Your task to perform on an android device: open the mobile data screen to see how much data has been used Image 0: 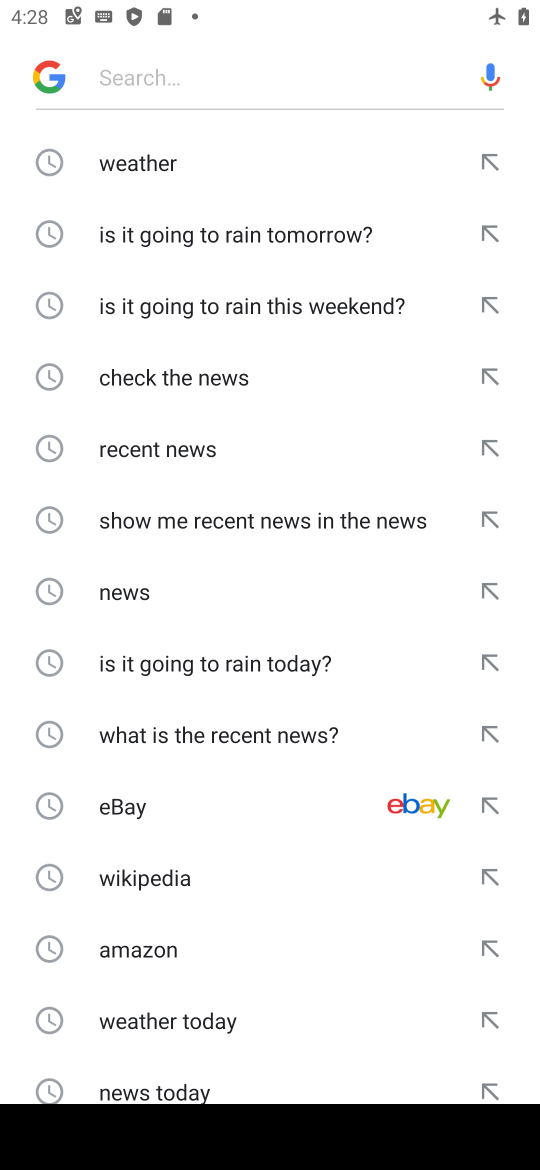
Step 0: press home button
Your task to perform on an android device: open the mobile data screen to see how much data has been used Image 1: 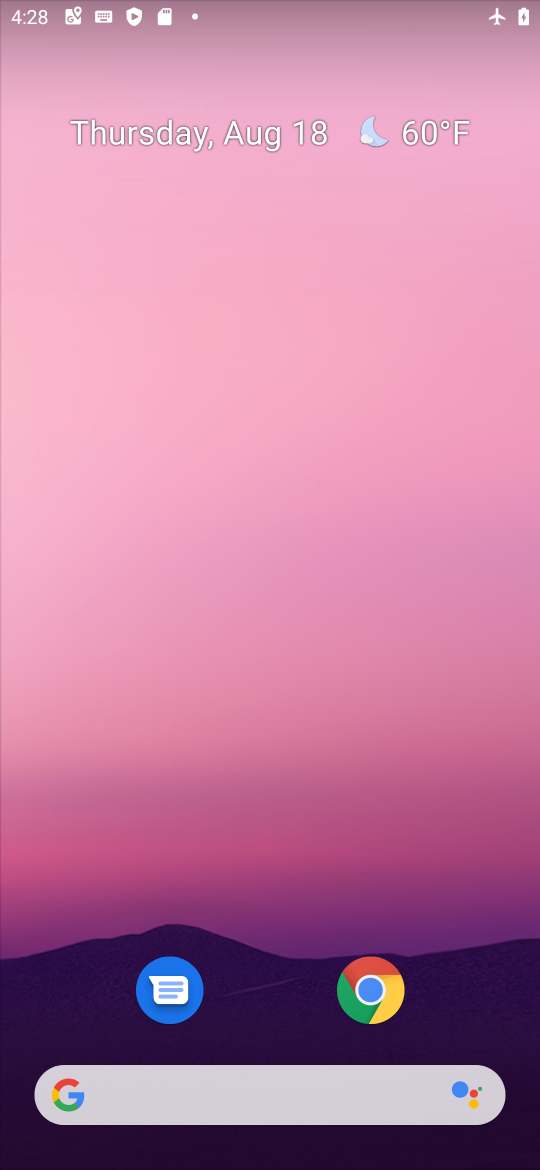
Step 1: drag from (276, 758) to (268, 14)
Your task to perform on an android device: open the mobile data screen to see how much data has been used Image 2: 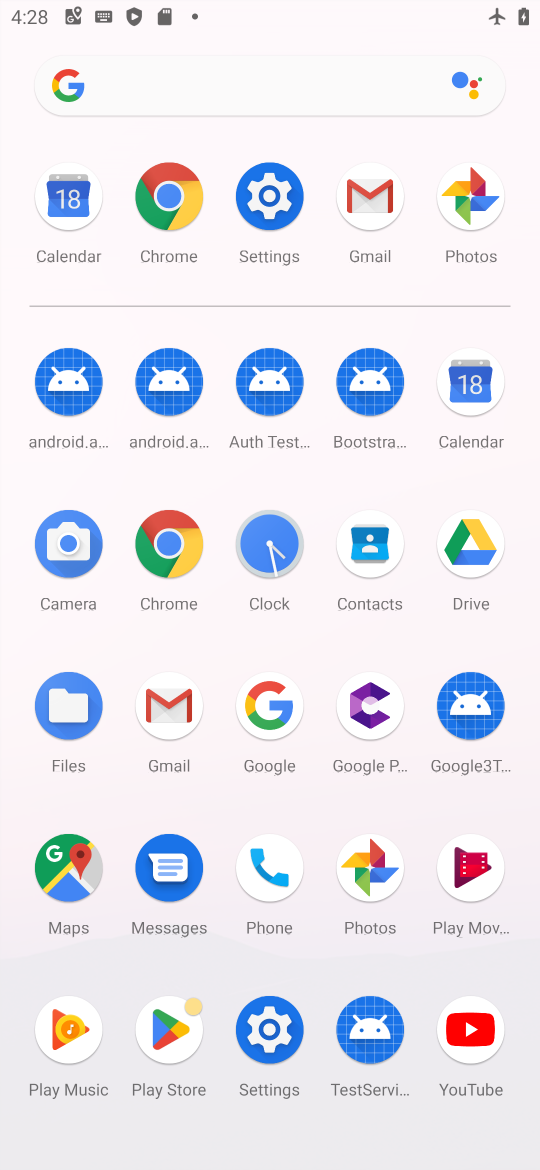
Step 2: click (172, 541)
Your task to perform on an android device: open the mobile data screen to see how much data has been used Image 3: 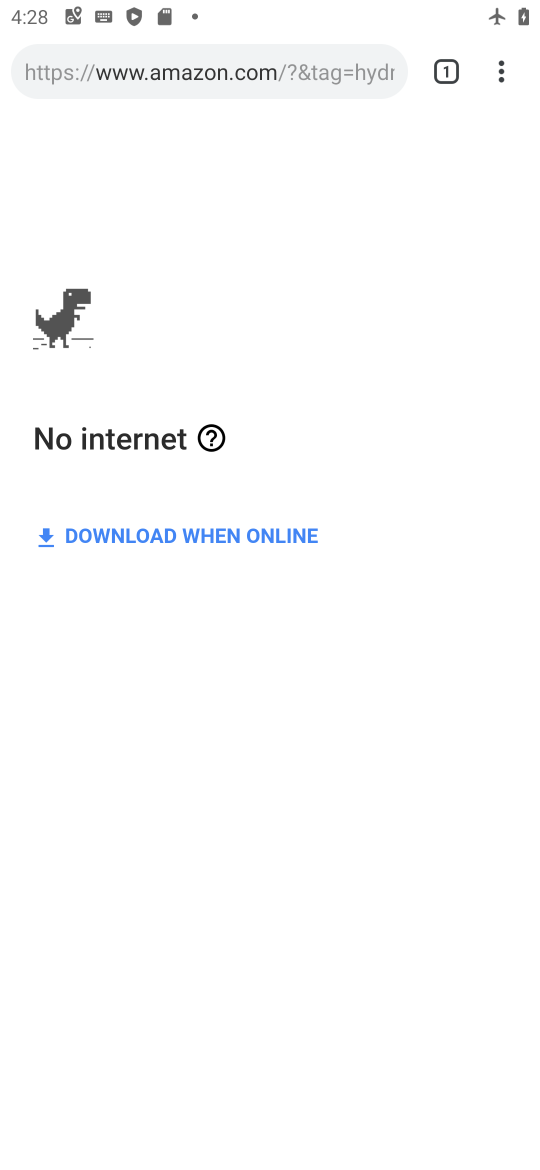
Step 3: drag from (497, 64) to (247, 805)
Your task to perform on an android device: open the mobile data screen to see how much data has been used Image 4: 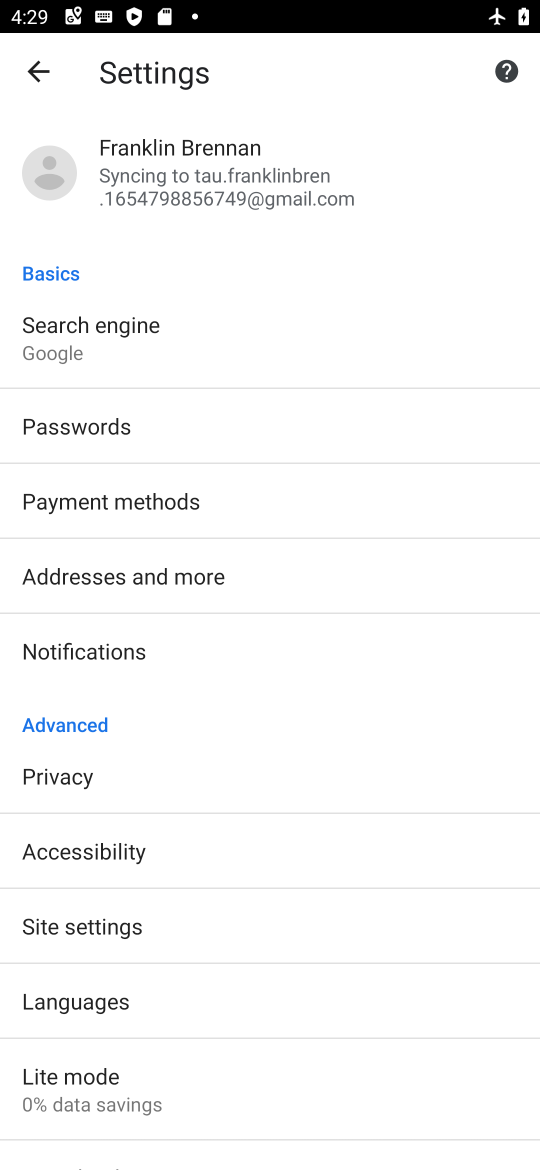
Step 4: press home button
Your task to perform on an android device: open the mobile data screen to see how much data has been used Image 5: 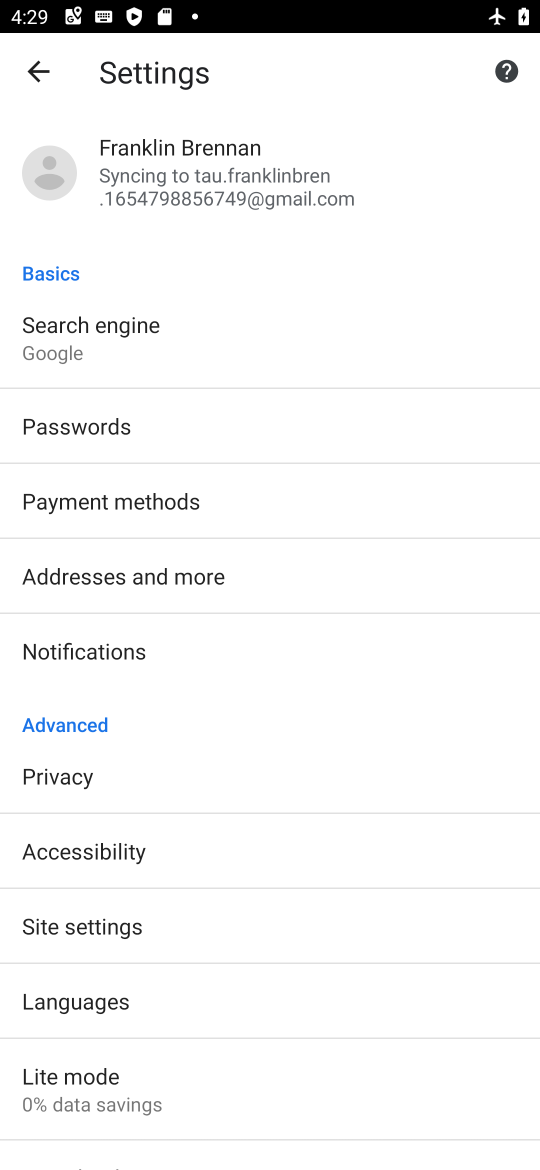
Step 5: press home button
Your task to perform on an android device: open the mobile data screen to see how much data has been used Image 6: 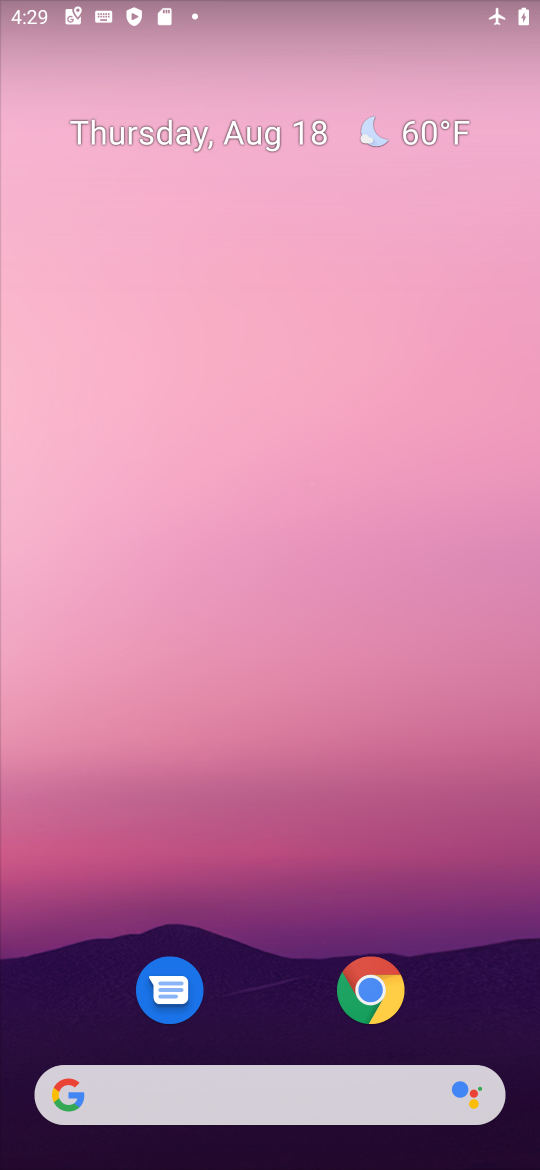
Step 6: drag from (324, 568) to (343, 23)
Your task to perform on an android device: open the mobile data screen to see how much data has been used Image 7: 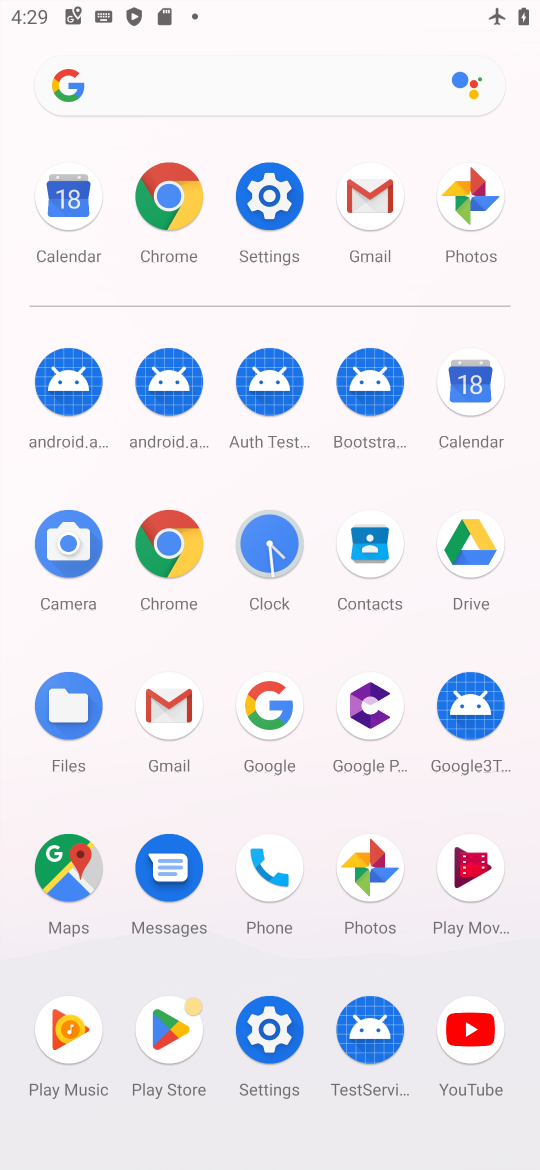
Step 7: click (262, 1017)
Your task to perform on an android device: open the mobile data screen to see how much data has been used Image 8: 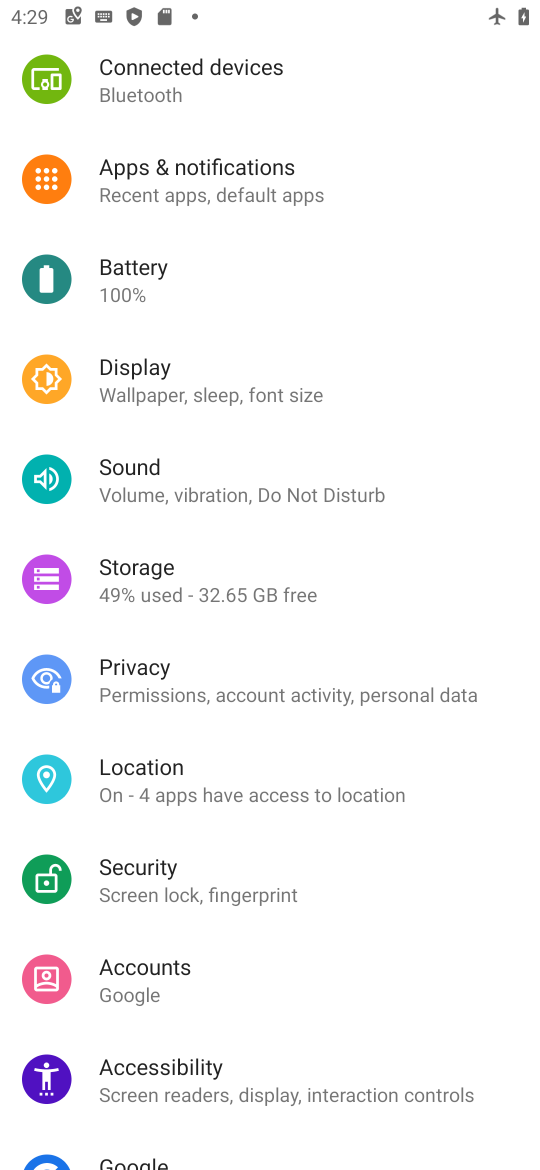
Step 8: drag from (365, 278) to (274, 1019)
Your task to perform on an android device: open the mobile data screen to see how much data has been used Image 9: 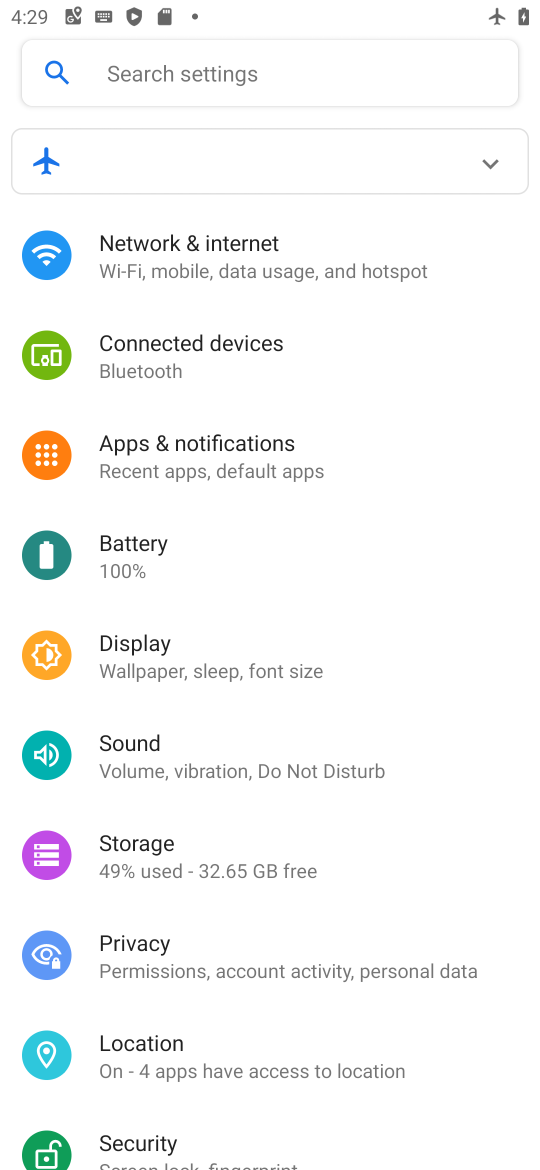
Step 9: click (235, 270)
Your task to perform on an android device: open the mobile data screen to see how much data has been used Image 10: 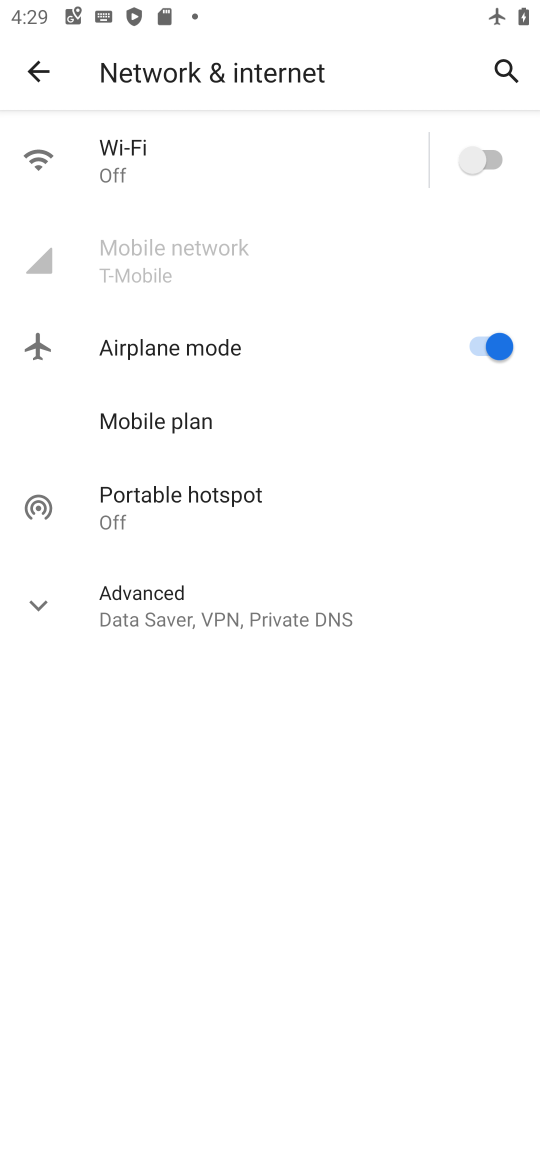
Step 10: click (227, 277)
Your task to perform on an android device: open the mobile data screen to see how much data has been used Image 11: 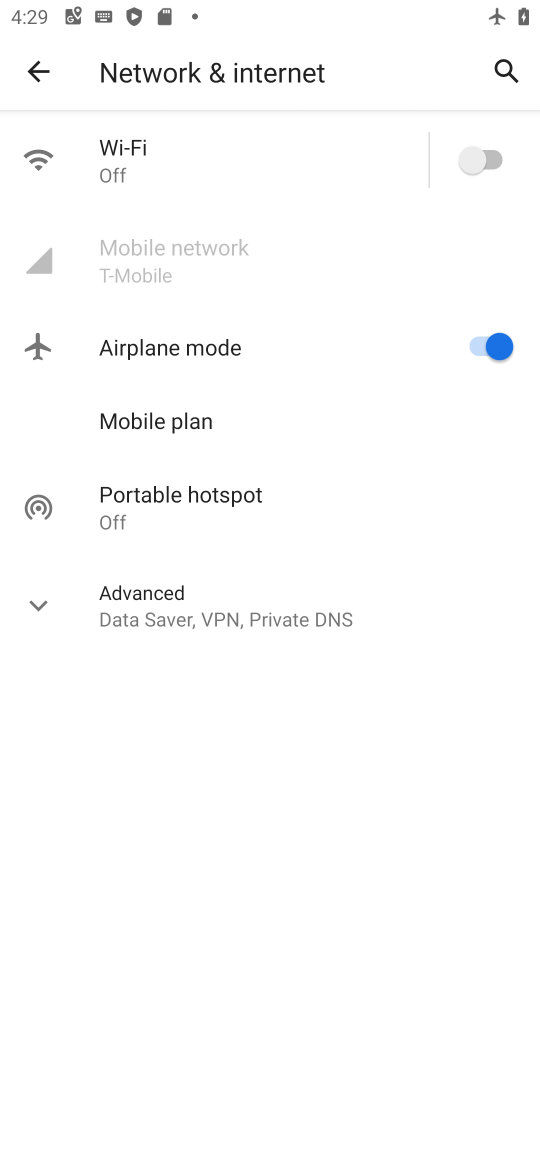
Step 11: click (176, 595)
Your task to perform on an android device: open the mobile data screen to see how much data has been used Image 12: 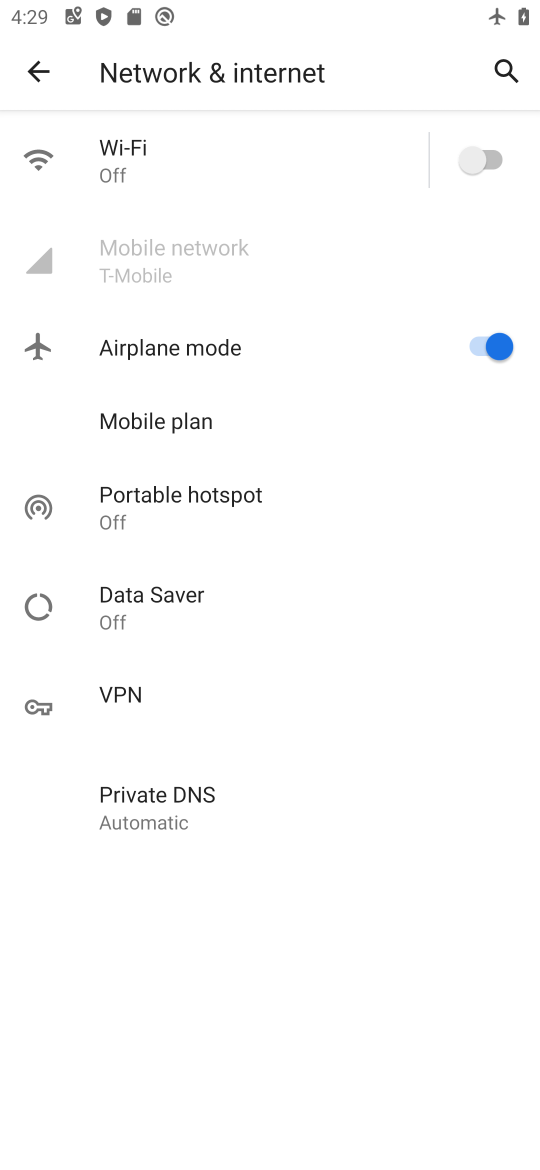
Step 12: task complete